Your task to perform on an android device: Open calendar and show me the fourth week of next month Image 0: 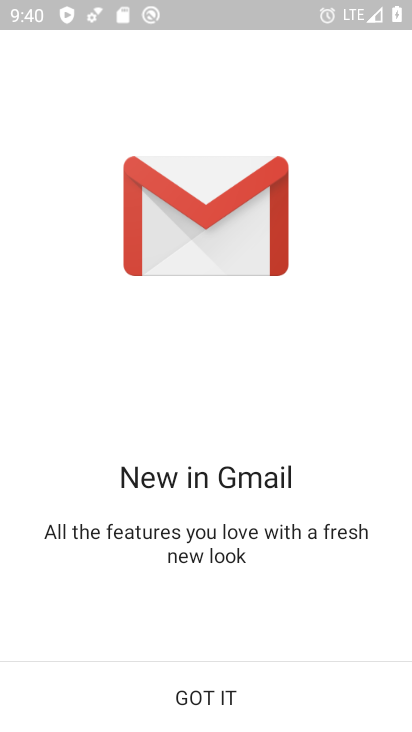
Step 0: press home button
Your task to perform on an android device: Open calendar and show me the fourth week of next month Image 1: 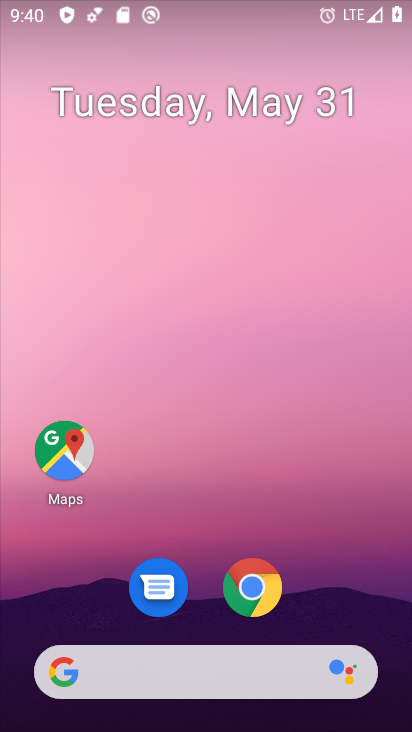
Step 1: drag from (372, 615) to (380, 245)
Your task to perform on an android device: Open calendar and show me the fourth week of next month Image 2: 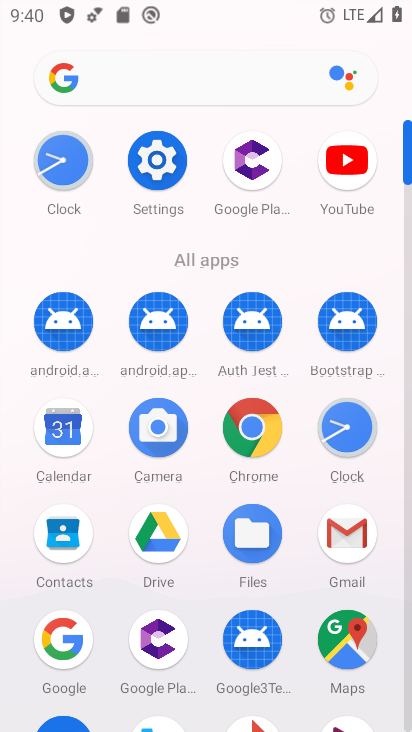
Step 2: drag from (204, 550) to (182, 235)
Your task to perform on an android device: Open calendar and show me the fourth week of next month Image 3: 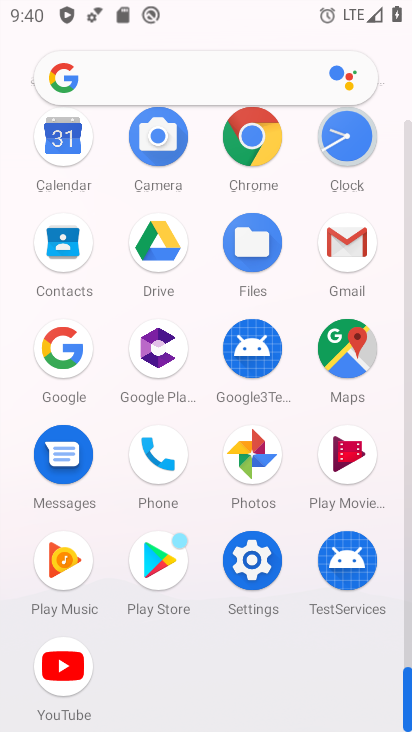
Step 3: click (56, 143)
Your task to perform on an android device: Open calendar and show me the fourth week of next month Image 4: 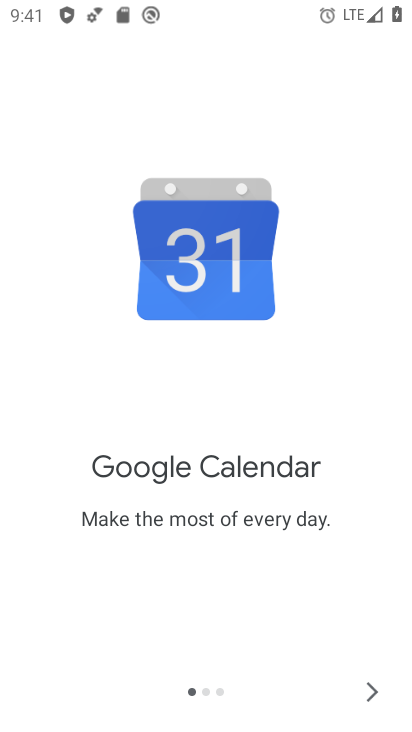
Step 4: click (370, 695)
Your task to perform on an android device: Open calendar and show me the fourth week of next month Image 5: 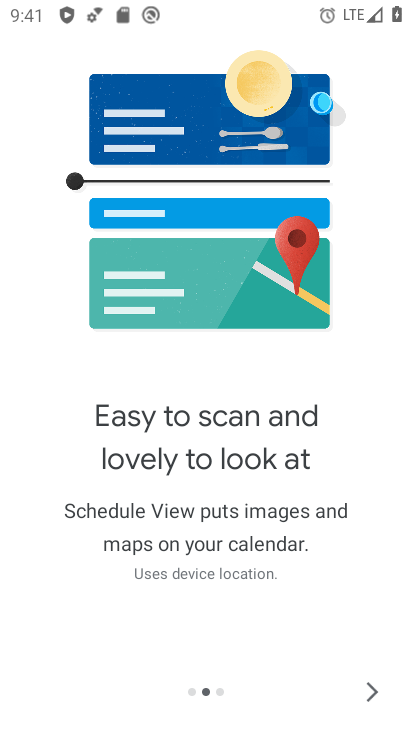
Step 5: click (370, 695)
Your task to perform on an android device: Open calendar and show me the fourth week of next month Image 6: 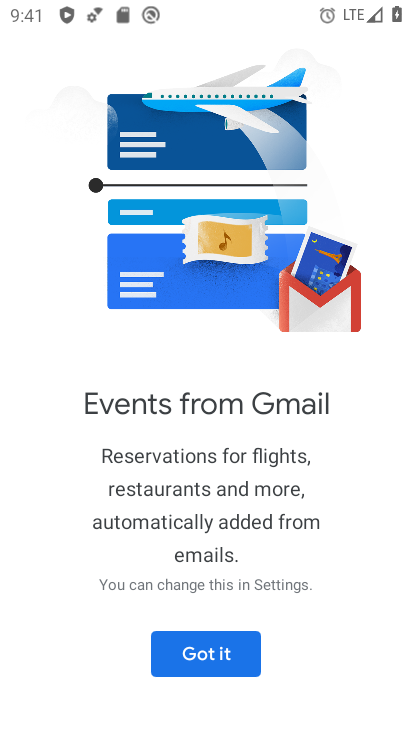
Step 6: click (221, 657)
Your task to perform on an android device: Open calendar and show me the fourth week of next month Image 7: 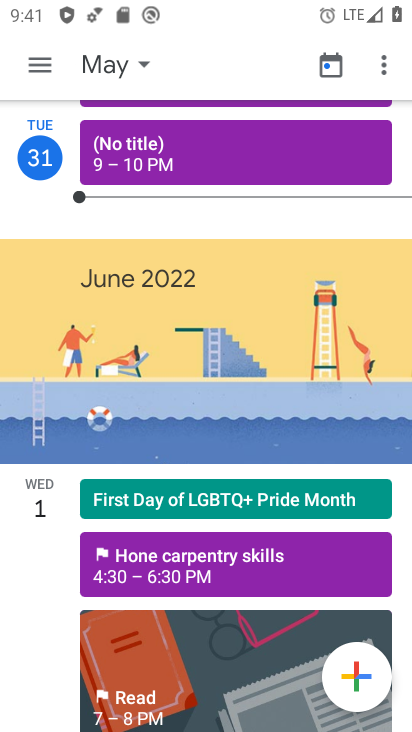
Step 7: click (141, 59)
Your task to perform on an android device: Open calendar and show me the fourth week of next month Image 8: 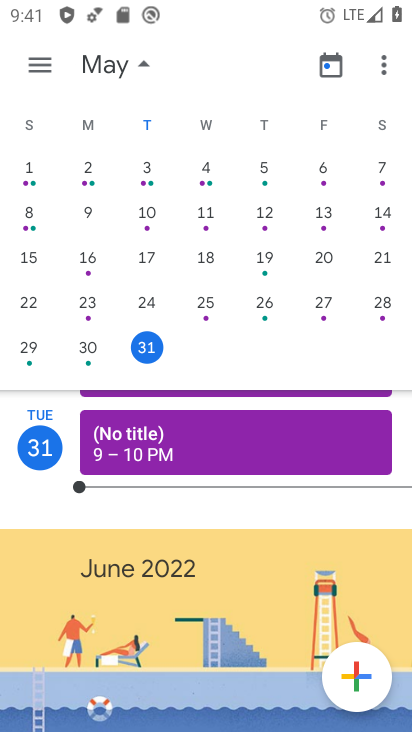
Step 8: drag from (383, 141) to (14, 152)
Your task to perform on an android device: Open calendar and show me the fourth week of next month Image 9: 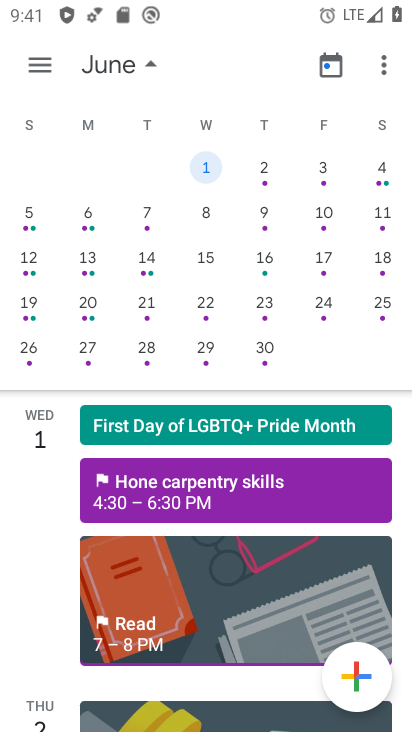
Step 9: drag from (302, 143) to (5, 135)
Your task to perform on an android device: Open calendar and show me the fourth week of next month Image 10: 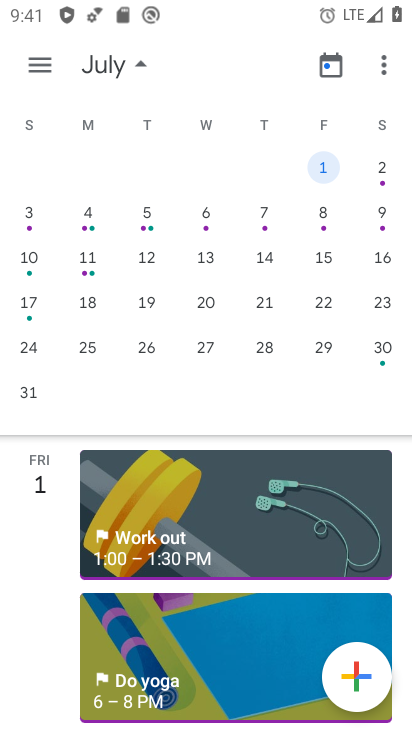
Step 10: click (95, 309)
Your task to perform on an android device: Open calendar and show me the fourth week of next month Image 11: 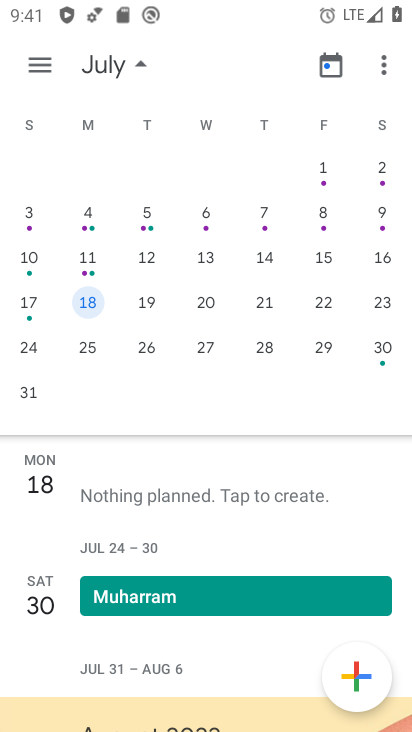
Step 11: task complete